Your task to perform on an android device: Open Google Maps Image 0: 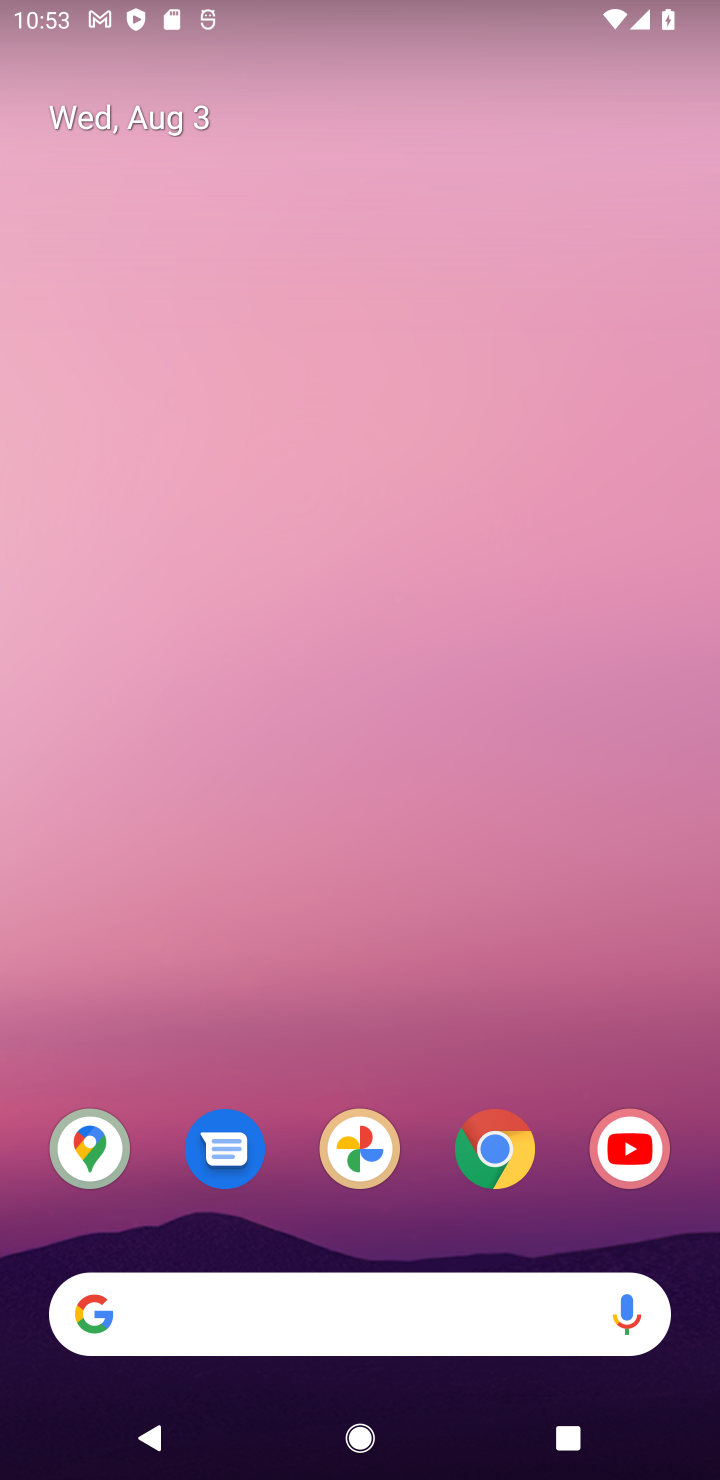
Step 0: click (89, 1143)
Your task to perform on an android device: Open Google Maps Image 1: 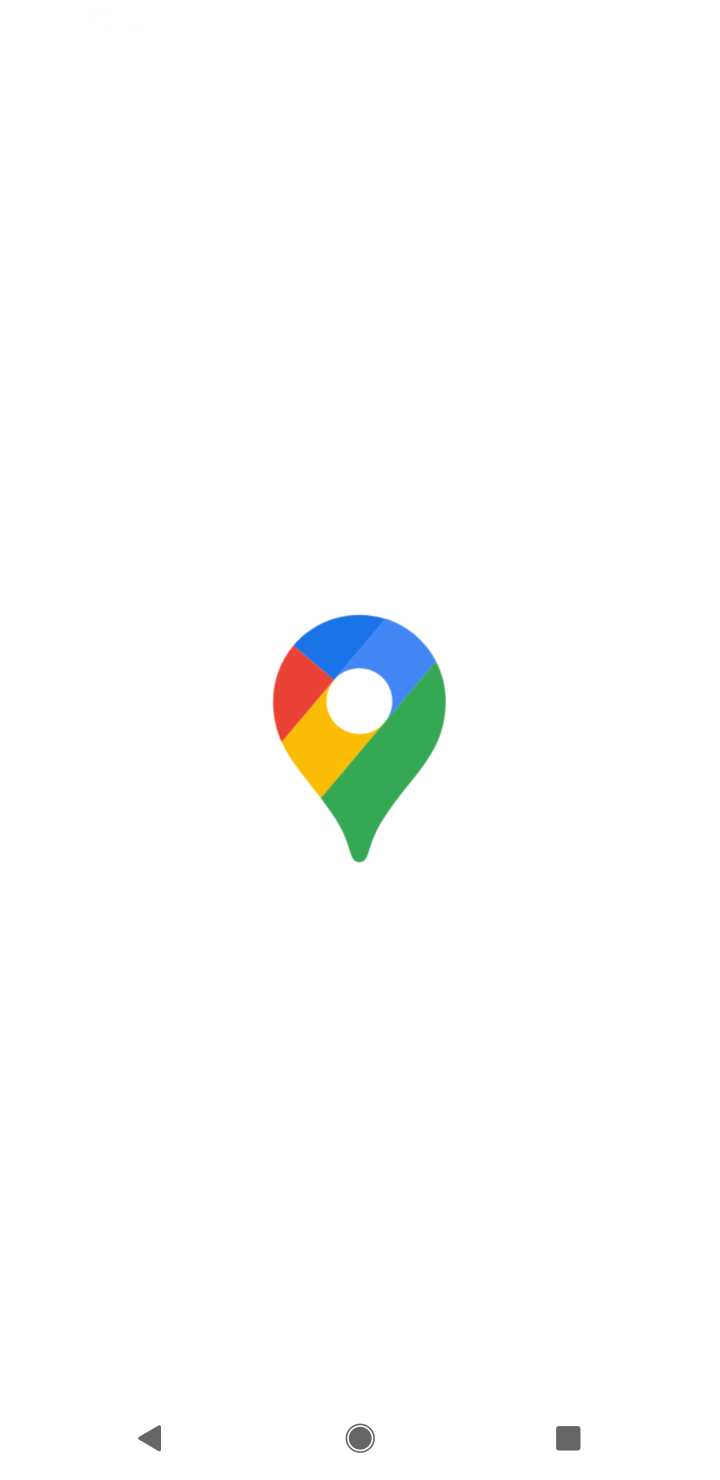
Step 1: task complete